Your task to perform on an android device: change keyboard looks Image 0: 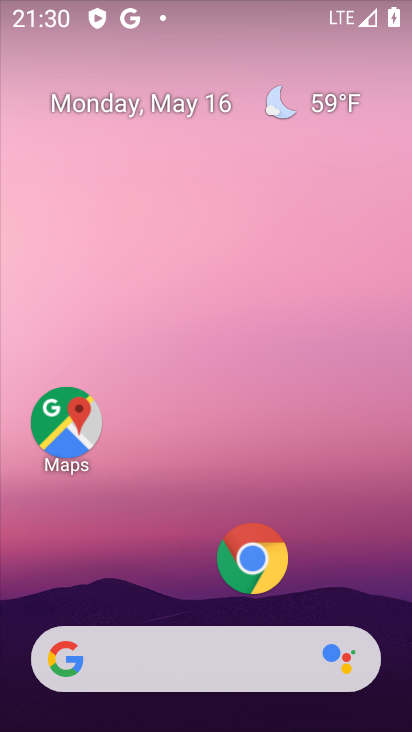
Step 0: drag from (180, 555) to (268, 118)
Your task to perform on an android device: change keyboard looks Image 1: 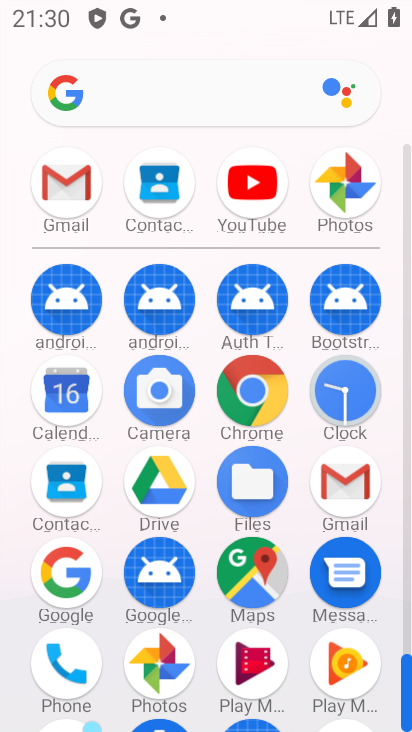
Step 1: drag from (221, 659) to (338, 163)
Your task to perform on an android device: change keyboard looks Image 2: 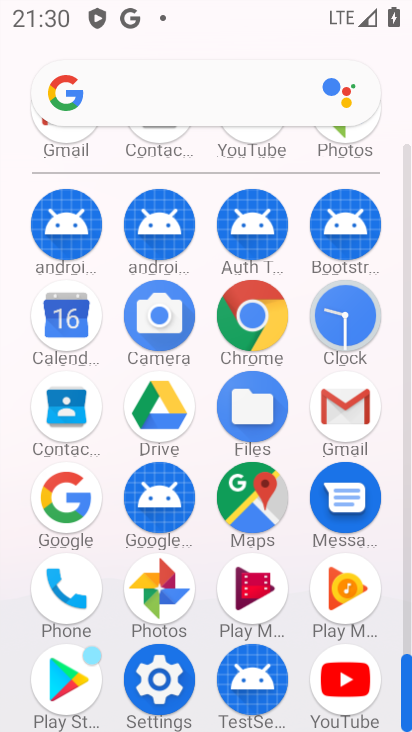
Step 2: click (133, 699)
Your task to perform on an android device: change keyboard looks Image 3: 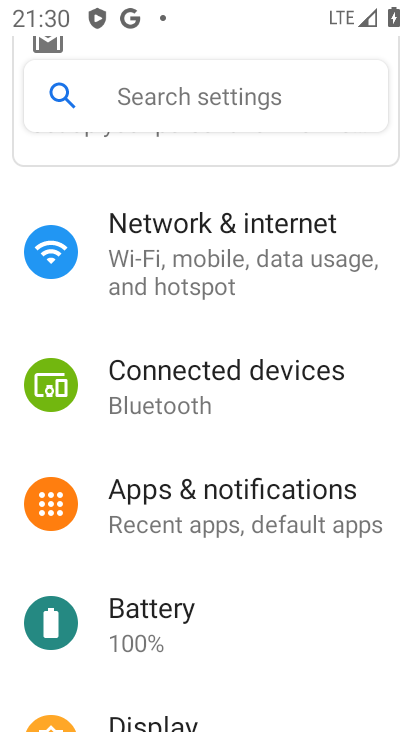
Step 3: drag from (191, 633) to (294, 139)
Your task to perform on an android device: change keyboard looks Image 4: 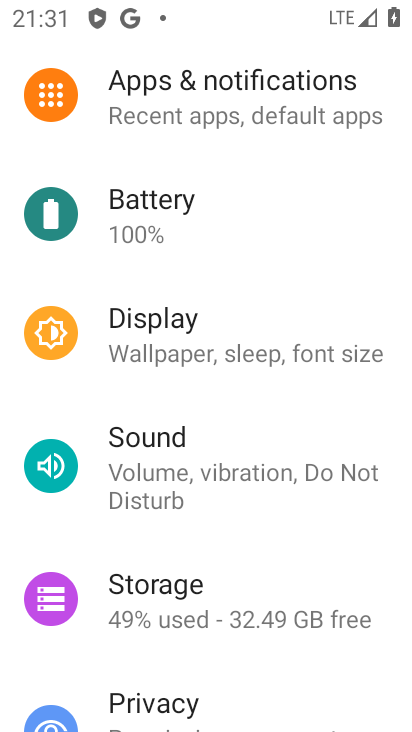
Step 4: drag from (191, 632) to (314, 38)
Your task to perform on an android device: change keyboard looks Image 5: 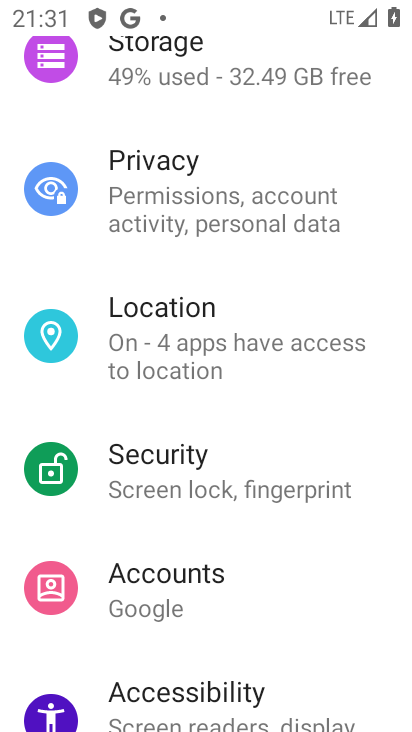
Step 5: drag from (197, 667) to (342, 94)
Your task to perform on an android device: change keyboard looks Image 6: 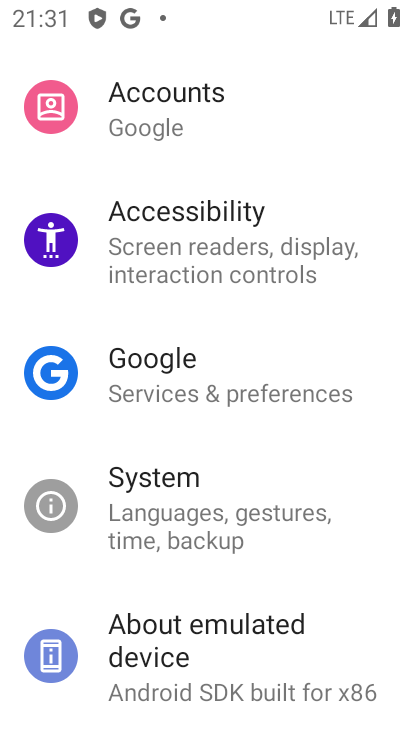
Step 6: drag from (162, 619) to (297, 60)
Your task to perform on an android device: change keyboard looks Image 7: 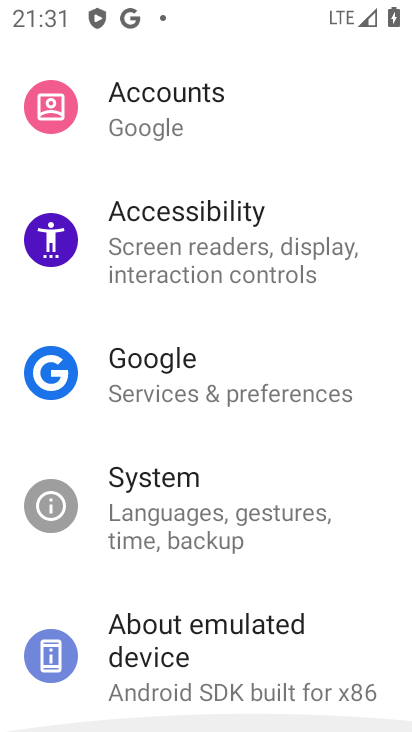
Step 7: click (158, 495)
Your task to perform on an android device: change keyboard looks Image 8: 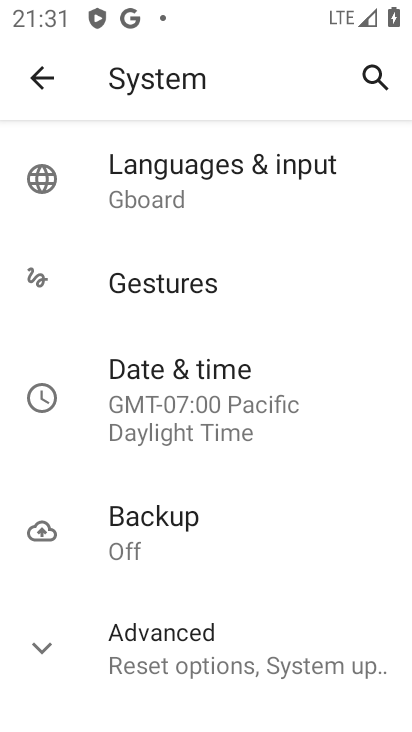
Step 8: click (175, 186)
Your task to perform on an android device: change keyboard looks Image 9: 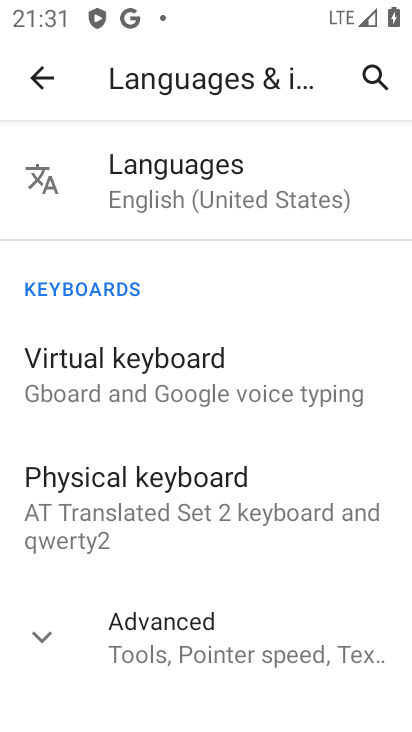
Step 9: click (144, 371)
Your task to perform on an android device: change keyboard looks Image 10: 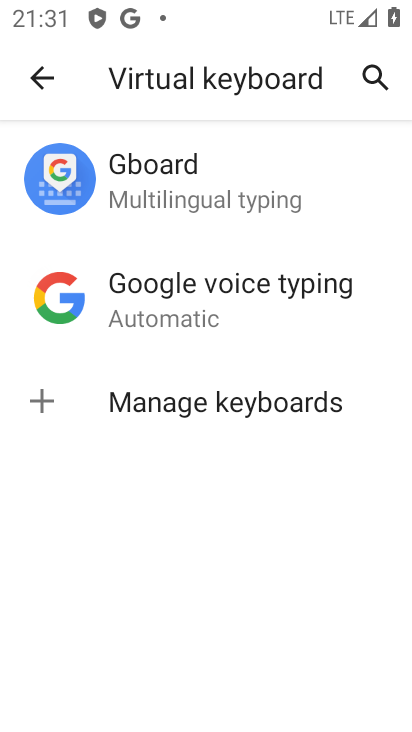
Step 10: click (133, 158)
Your task to perform on an android device: change keyboard looks Image 11: 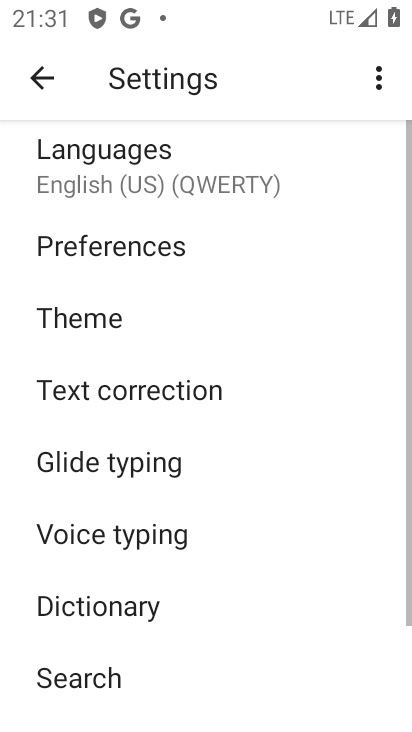
Step 11: click (73, 316)
Your task to perform on an android device: change keyboard looks Image 12: 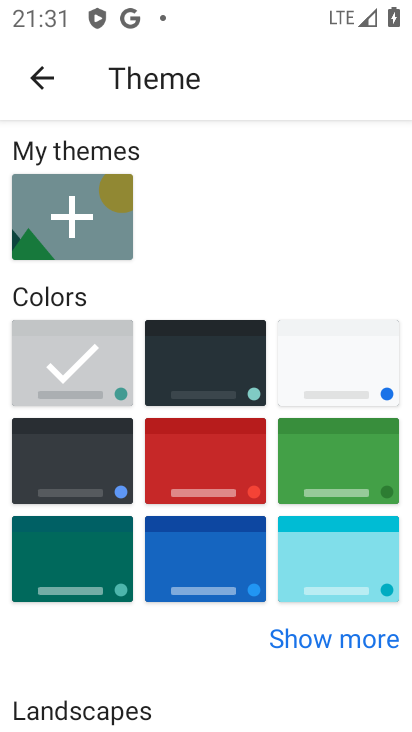
Step 12: click (220, 450)
Your task to perform on an android device: change keyboard looks Image 13: 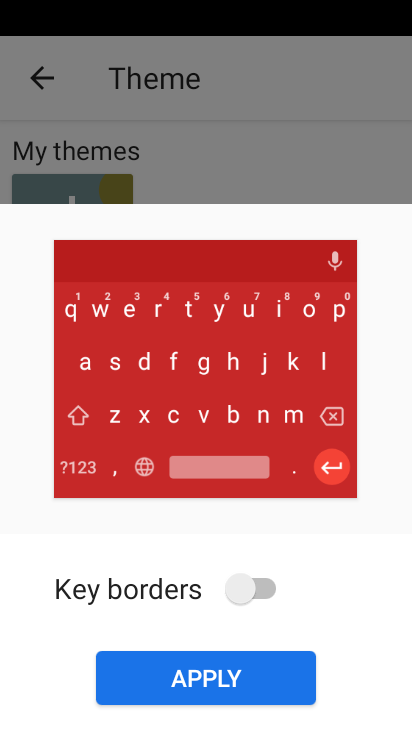
Step 13: click (180, 677)
Your task to perform on an android device: change keyboard looks Image 14: 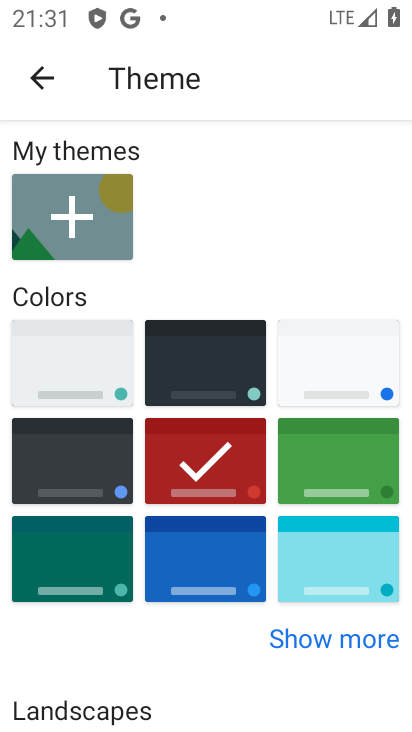
Step 14: task complete